Your task to perform on an android device: Turn on notifications for the Google Maps app Image 0: 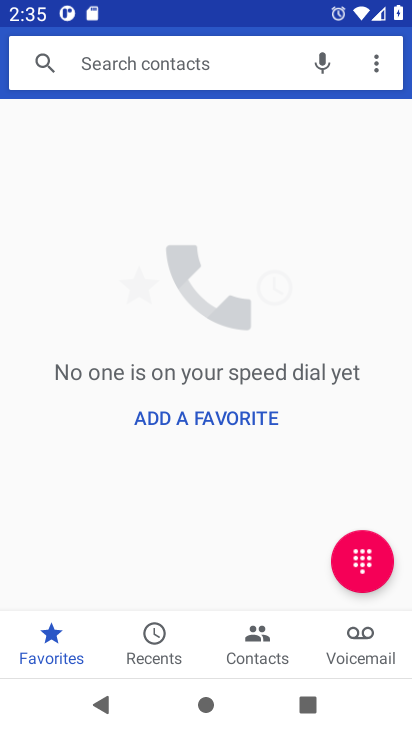
Step 0: press home button
Your task to perform on an android device: Turn on notifications for the Google Maps app Image 1: 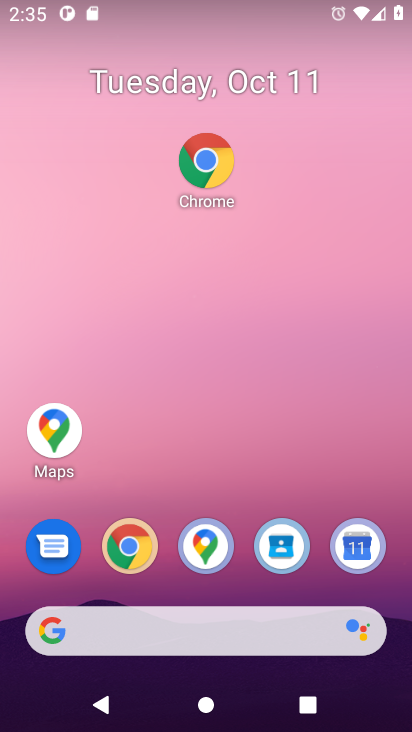
Step 1: drag from (136, 673) to (111, 200)
Your task to perform on an android device: Turn on notifications for the Google Maps app Image 2: 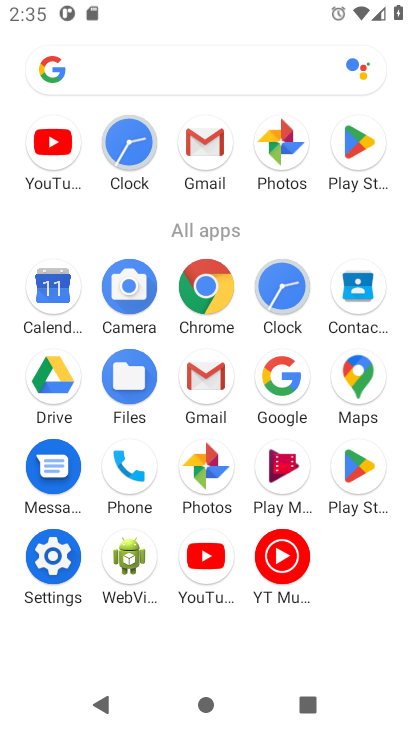
Step 2: click (54, 552)
Your task to perform on an android device: Turn on notifications for the Google Maps app Image 3: 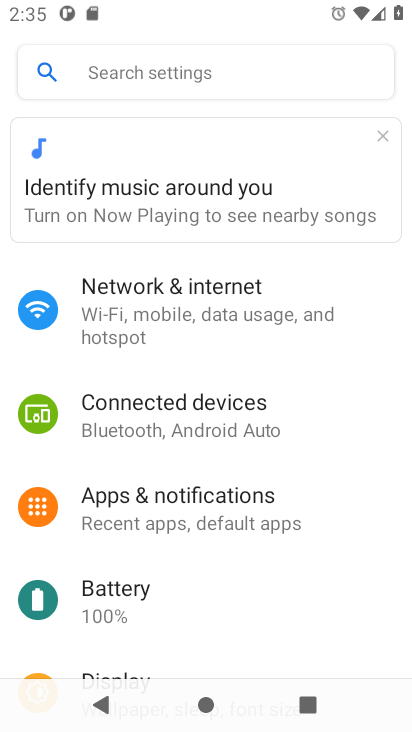
Step 3: click (228, 509)
Your task to perform on an android device: Turn on notifications for the Google Maps app Image 4: 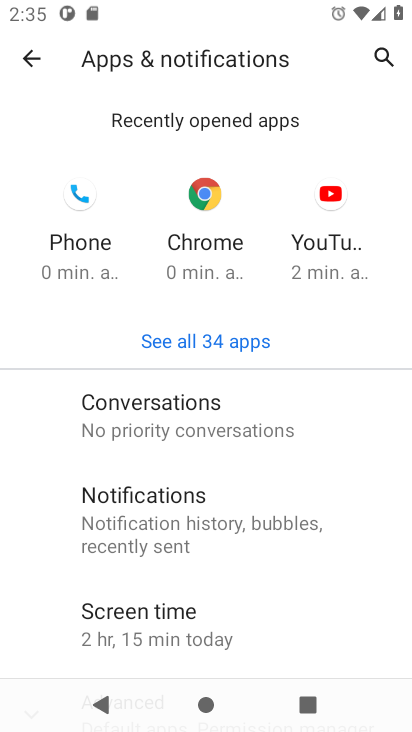
Step 4: click (219, 341)
Your task to perform on an android device: Turn on notifications for the Google Maps app Image 5: 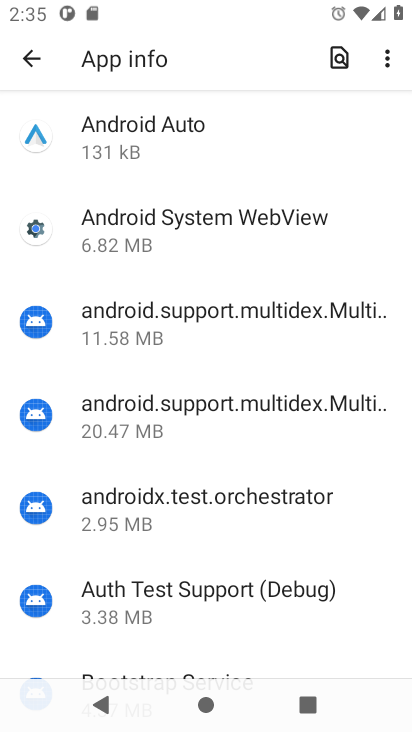
Step 5: drag from (229, 594) to (276, 220)
Your task to perform on an android device: Turn on notifications for the Google Maps app Image 6: 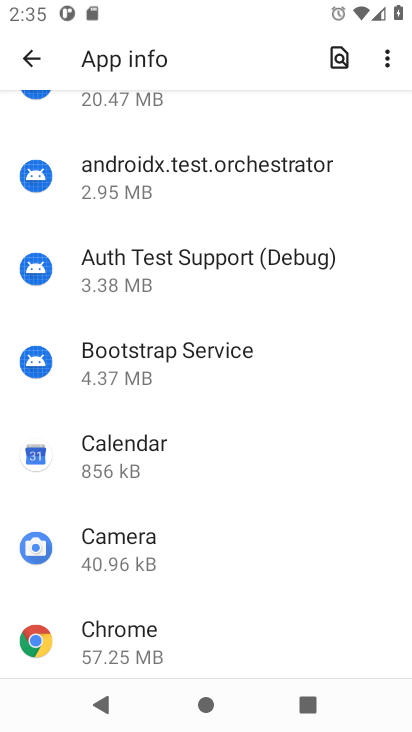
Step 6: drag from (257, 565) to (240, 206)
Your task to perform on an android device: Turn on notifications for the Google Maps app Image 7: 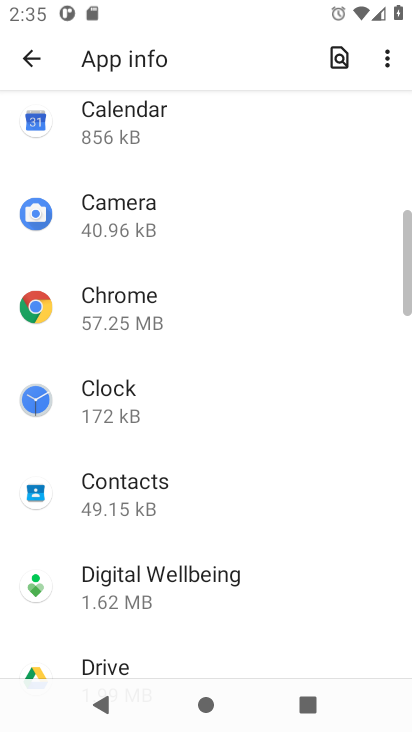
Step 7: drag from (265, 556) to (260, 205)
Your task to perform on an android device: Turn on notifications for the Google Maps app Image 8: 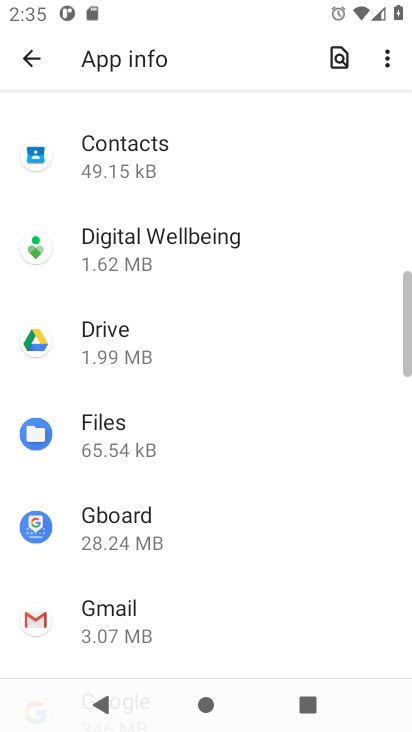
Step 8: drag from (230, 605) to (220, 247)
Your task to perform on an android device: Turn on notifications for the Google Maps app Image 9: 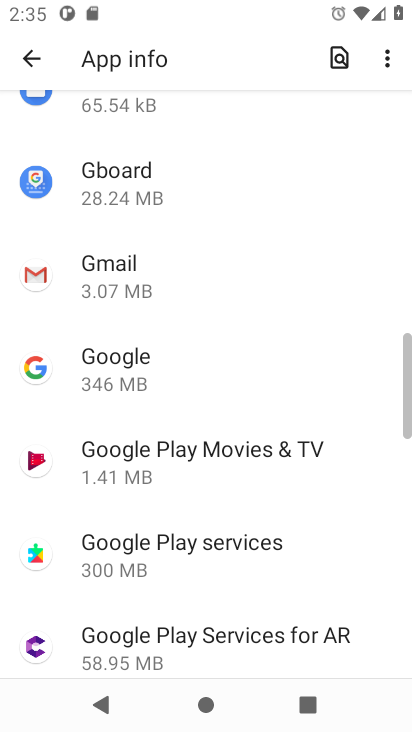
Step 9: drag from (231, 586) to (223, 232)
Your task to perform on an android device: Turn on notifications for the Google Maps app Image 10: 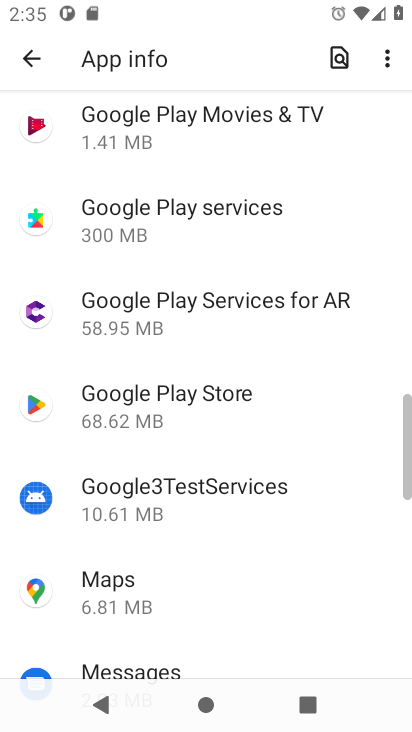
Step 10: drag from (229, 615) to (233, 247)
Your task to perform on an android device: Turn on notifications for the Google Maps app Image 11: 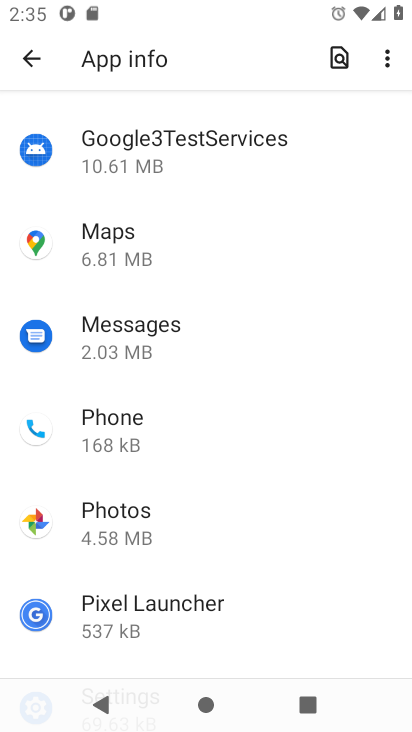
Step 11: click (118, 249)
Your task to perform on an android device: Turn on notifications for the Google Maps app Image 12: 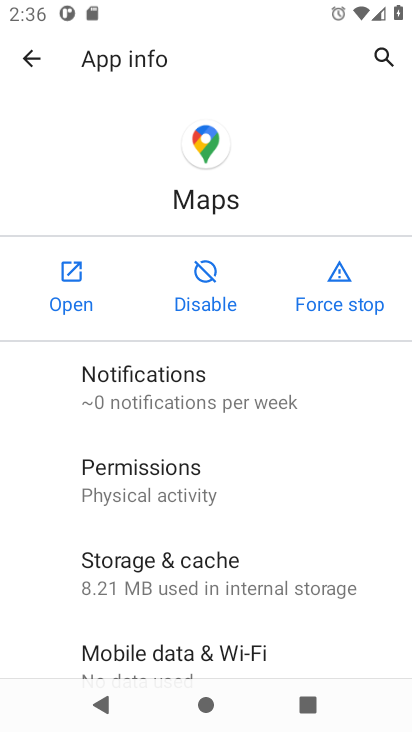
Step 12: click (212, 380)
Your task to perform on an android device: Turn on notifications for the Google Maps app Image 13: 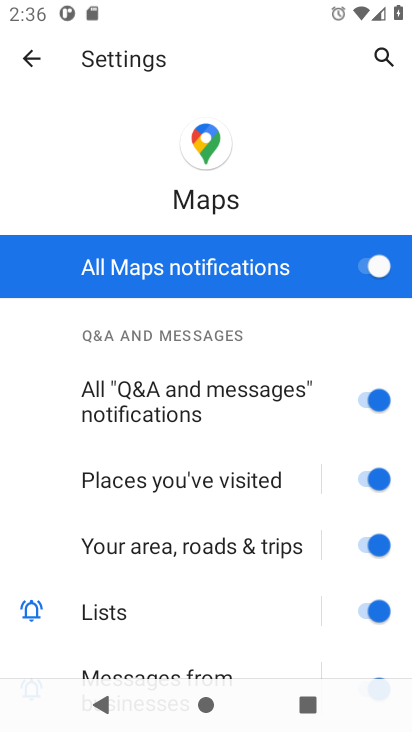
Step 13: click (370, 268)
Your task to perform on an android device: Turn on notifications for the Google Maps app Image 14: 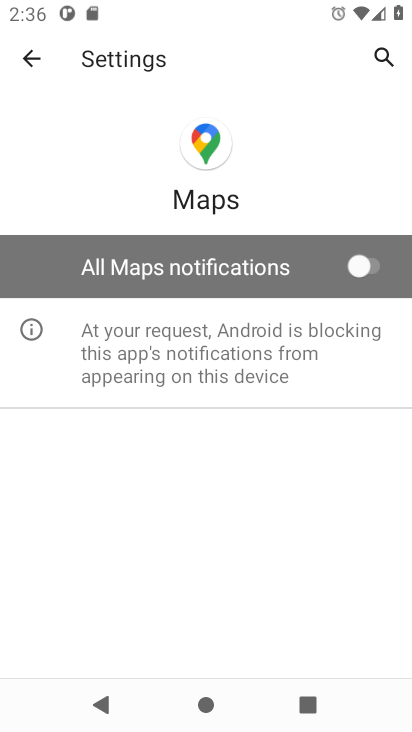
Step 14: click (370, 268)
Your task to perform on an android device: Turn on notifications for the Google Maps app Image 15: 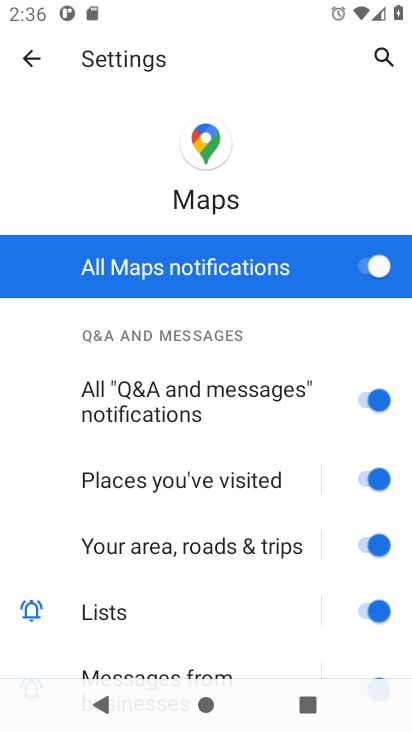
Step 15: drag from (230, 583) to (235, 354)
Your task to perform on an android device: Turn on notifications for the Google Maps app Image 16: 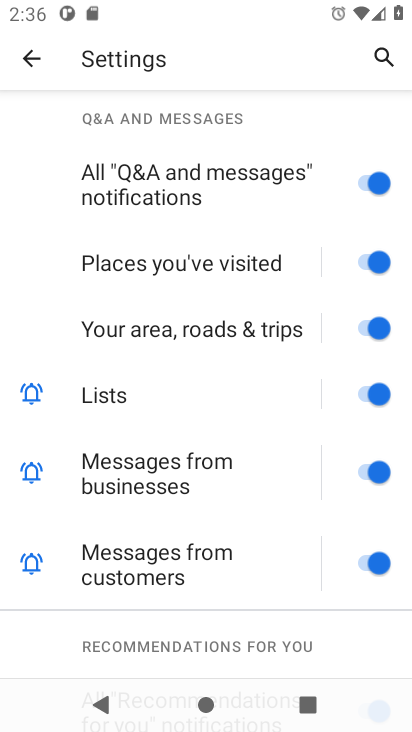
Step 16: drag from (249, 619) to (257, 306)
Your task to perform on an android device: Turn on notifications for the Google Maps app Image 17: 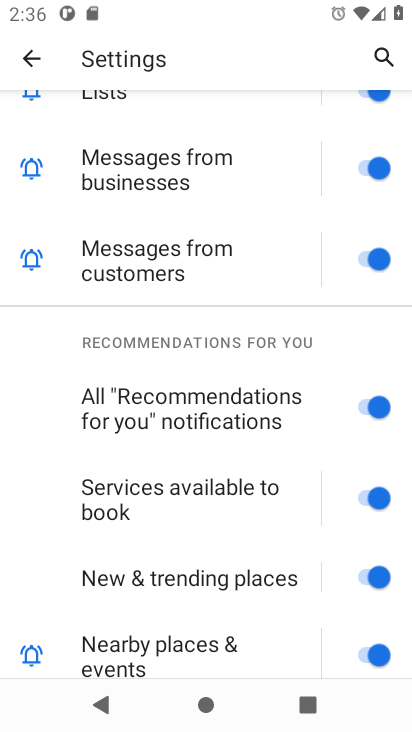
Step 17: drag from (201, 609) to (201, 370)
Your task to perform on an android device: Turn on notifications for the Google Maps app Image 18: 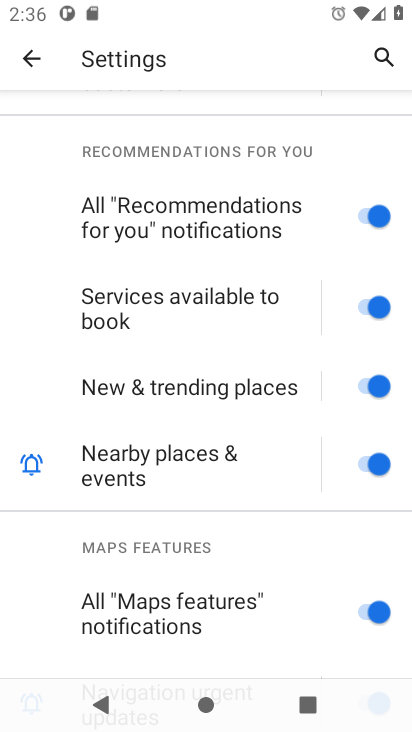
Step 18: drag from (200, 614) to (203, 343)
Your task to perform on an android device: Turn on notifications for the Google Maps app Image 19: 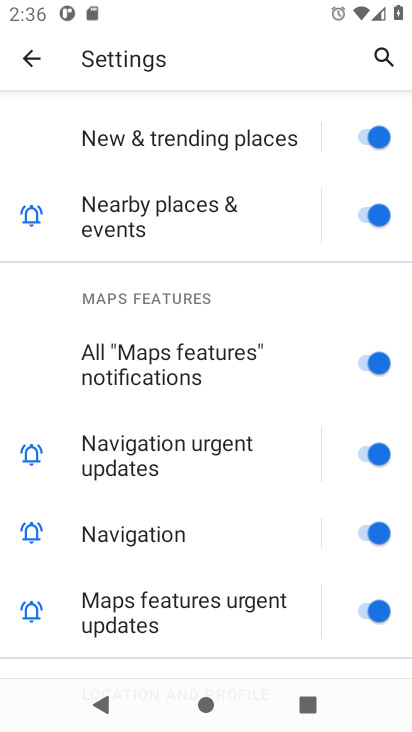
Step 19: drag from (147, 588) to (128, 218)
Your task to perform on an android device: Turn on notifications for the Google Maps app Image 20: 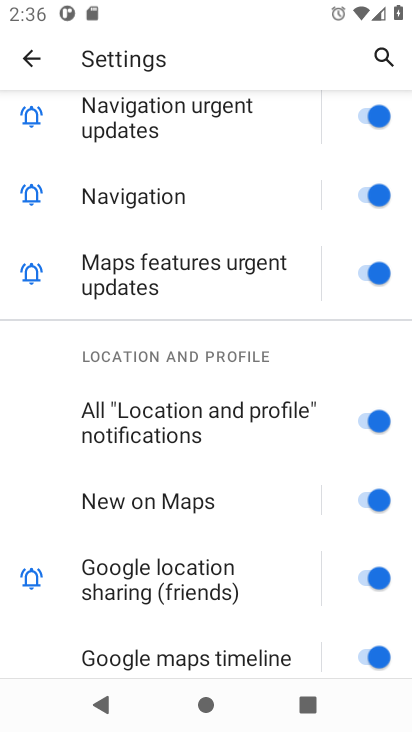
Step 20: drag from (189, 577) to (181, 230)
Your task to perform on an android device: Turn on notifications for the Google Maps app Image 21: 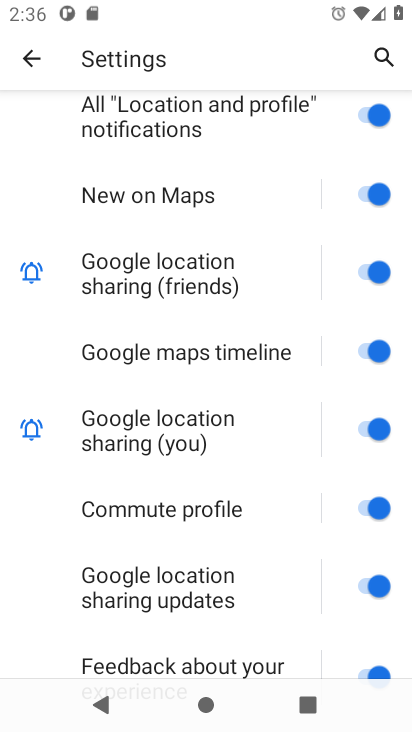
Step 21: drag from (185, 567) to (190, 320)
Your task to perform on an android device: Turn on notifications for the Google Maps app Image 22: 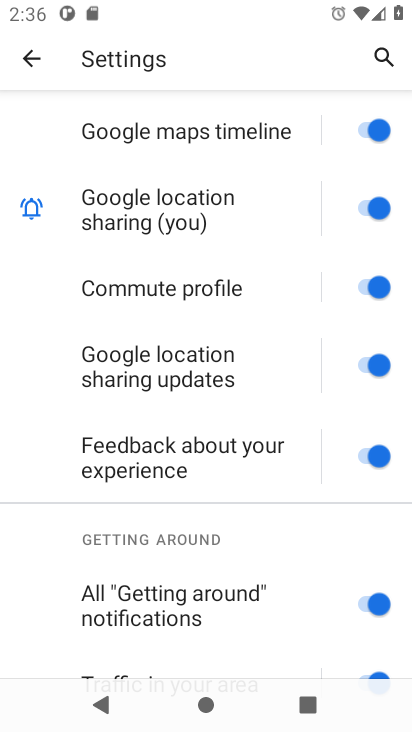
Step 22: drag from (240, 583) to (256, 355)
Your task to perform on an android device: Turn on notifications for the Google Maps app Image 23: 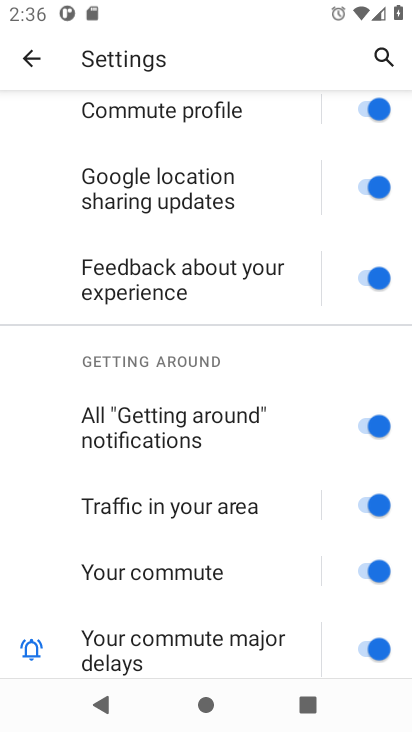
Step 23: drag from (262, 625) to (250, 291)
Your task to perform on an android device: Turn on notifications for the Google Maps app Image 24: 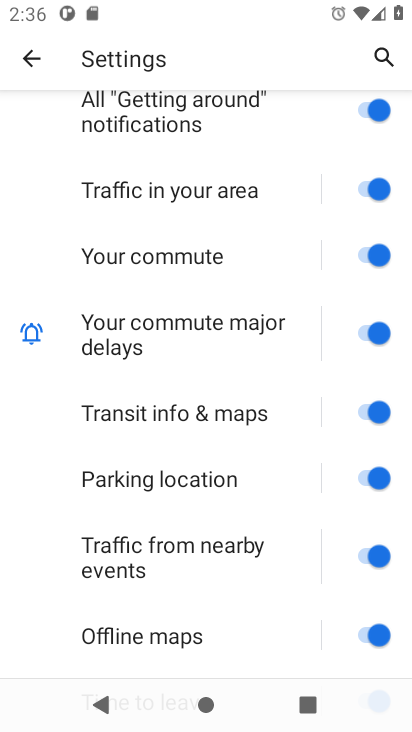
Step 24: drag from (231, 648) to (227, 366)
Your task to perform on an android device: Turn on notifications for the Google Maps app Image 25: 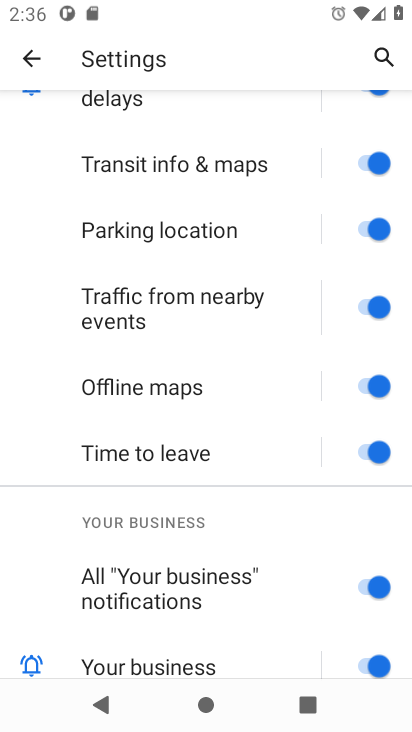
Step 25: drag from (186, 617) to (201, 424)
Your task to perform on an android device: Turn on notifications for the Google Maps app Image 26: 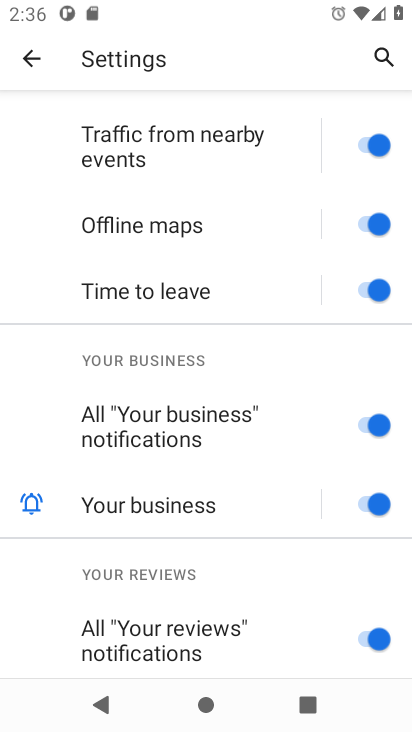
Step 26: drag from (237, 616) to (245, 389)
Your task to perform on an android device: Turn on notifications for the Google Maps app Image 27: 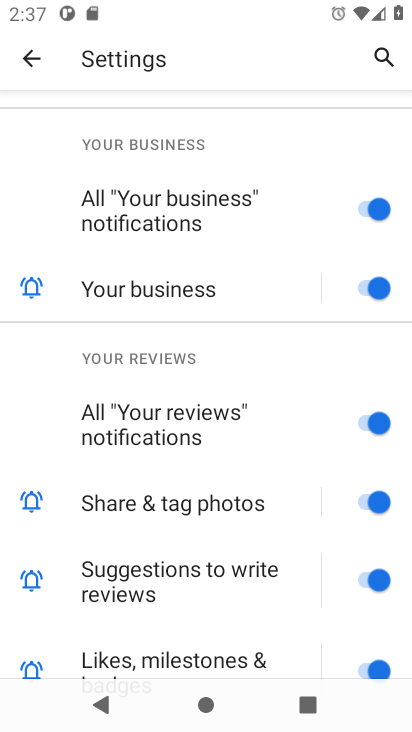
Step 27: drag from (215, 634) to (243, 363)
Your task to perform on an android device: Turn on notifications for the Google Maps app Image 28: 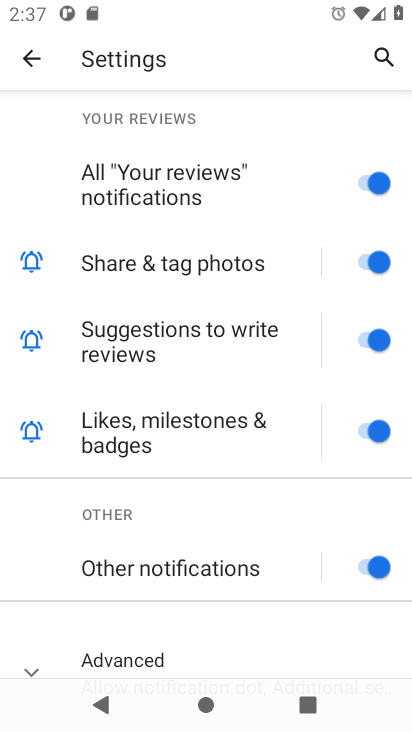
Step 28: drag from (196, 609) to (199, 294)
Your task to perform on an android device: Turn on notifications for the Google Maps app Image 29: 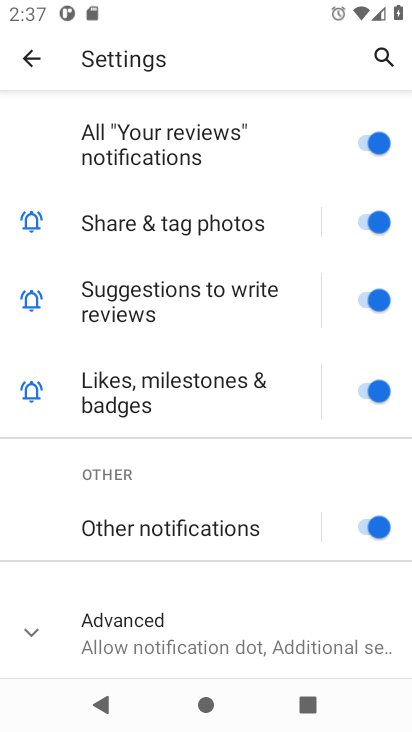
Step 29: click (34, 634)
Your task to perform on an android device: Turn on notifications for the Google Maps app Image 30: 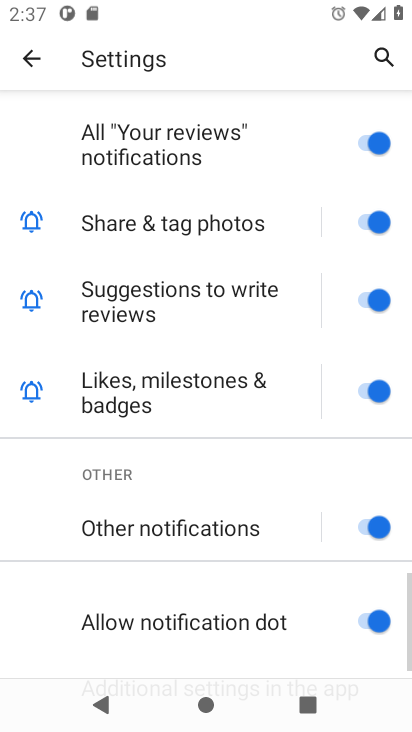
Step 30: drag from (108, 566) to (108, 272)
Your task to perform on an android device: Turn on notifications for the Google Maps app Image 31: 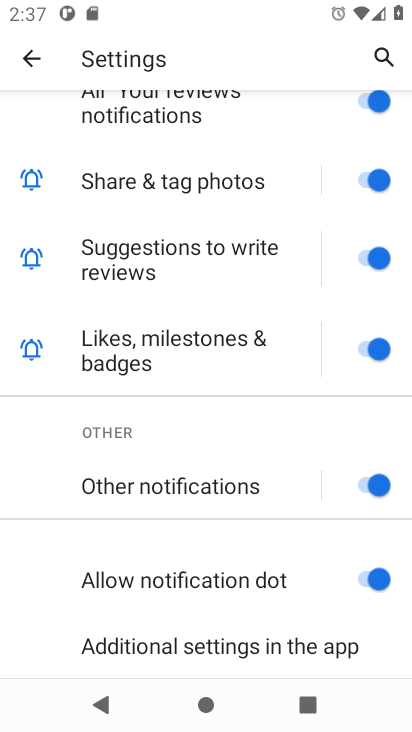
Step 31: drag from (184, 615) to (183, 411)
Your task to perform on an android device: Turn on notifications for the Google Maps app Image 32: 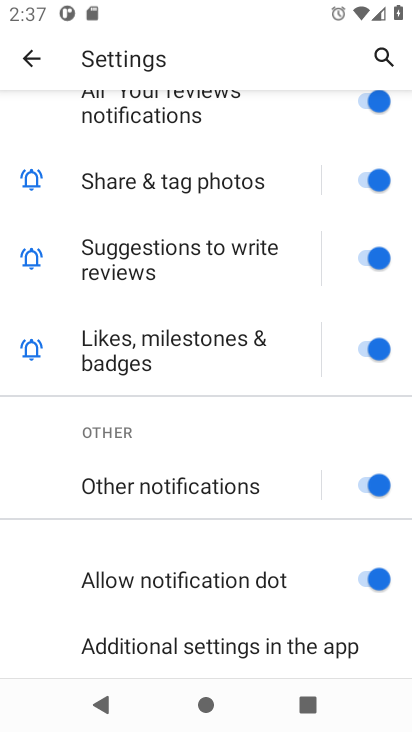
Step 32: click (226, 649)
Your task to perform on an android device: Turn on notifications for the Google Maps app Image 33: 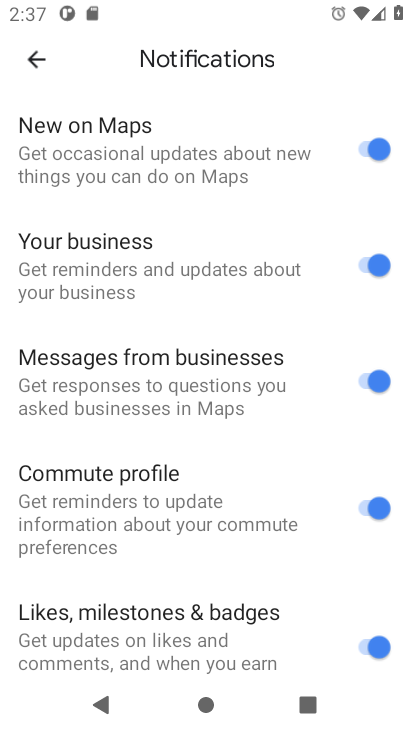
Step 33: drag from (202, 597) to (192, 99)
Your task to perform on an android device: Turn on notifications for the Google Maps app Image 34: 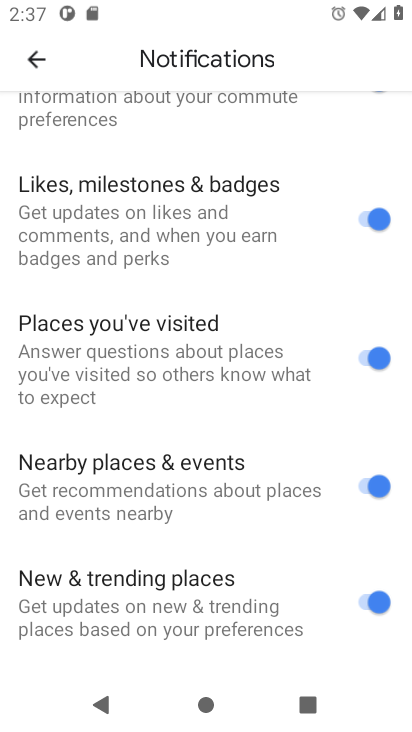
Step 34: drag from (167, 593) to (185, 155)
Your task to perform on an android device: Turn on notifications for the Google Maps app Image 35: 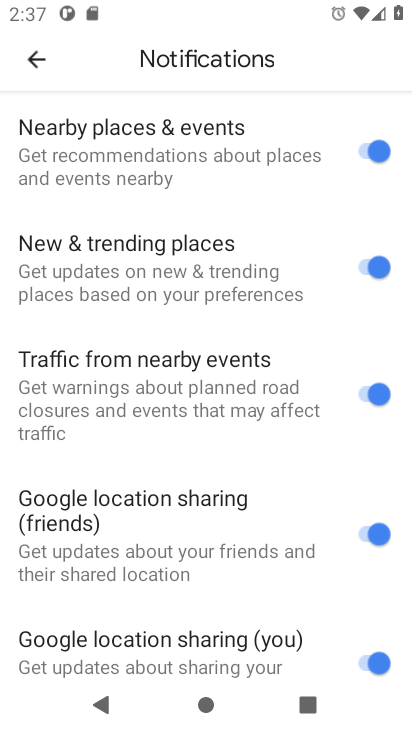
Step 35: drag from (206, 600) to (206, 172)
Your task to perform on an android device: Turn on notifications for the Google Maps app Image 36: 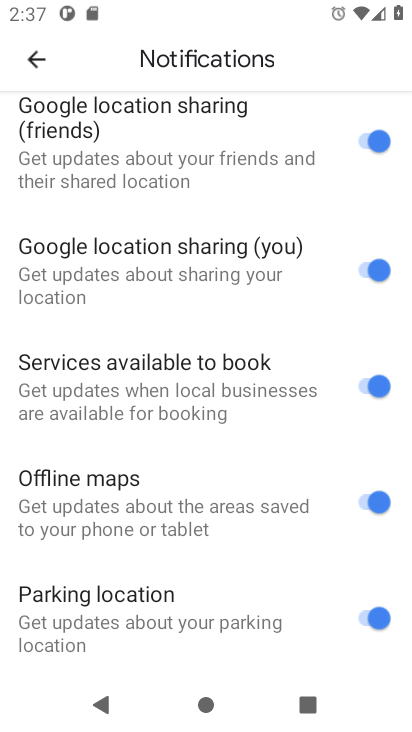
Step 36: drag from (221, 599) to (230, 212)
Your task to perform on an android device: Turn on notifications for the Google Maps app Image 37: 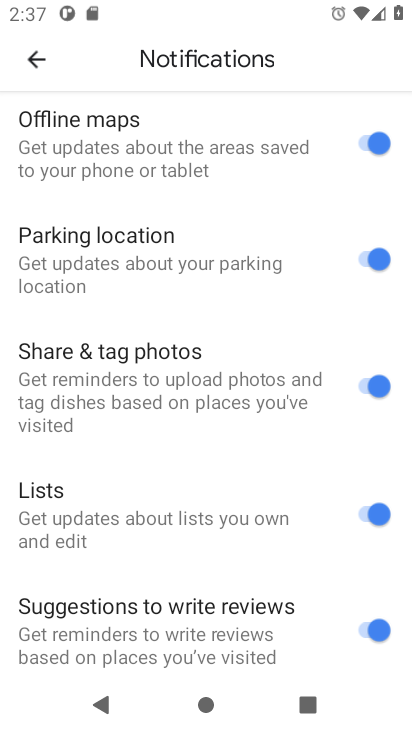
Step 37: drag from (202, 618) to (213, 176)
Your task to perform on an android device: Turn on notifications for the Google Maps app Image 38: 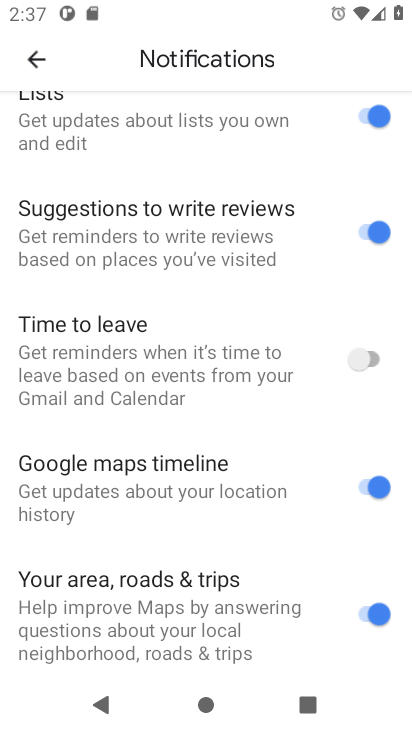
Step 38: drag from (211, 643) to (233, 274)
Your task to perform on an android device: Turn on notifications for the Google Maps app Image 39: 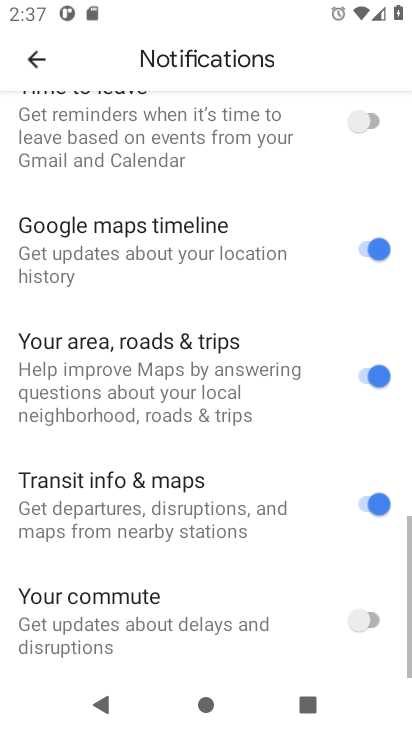
Step 39: click (233, 253)
Your task to perform on an android device: Turn on notifications for the Google Maps app Image 40: 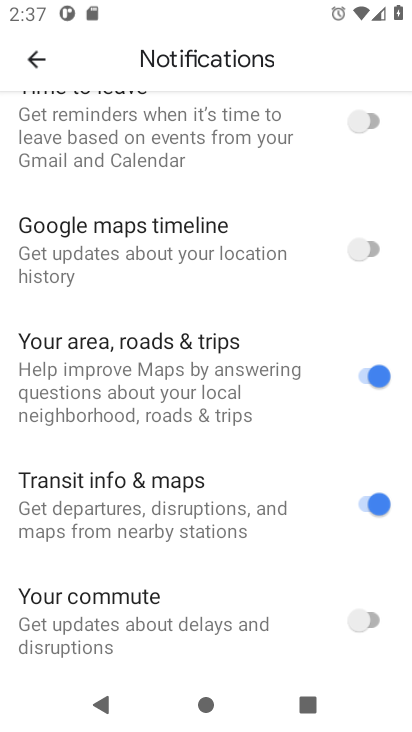
Step 40: drag from (225, 618) to (229, 442)
Your task to perform on an android device: Turn on notifications for the Google Maps app Image 41: 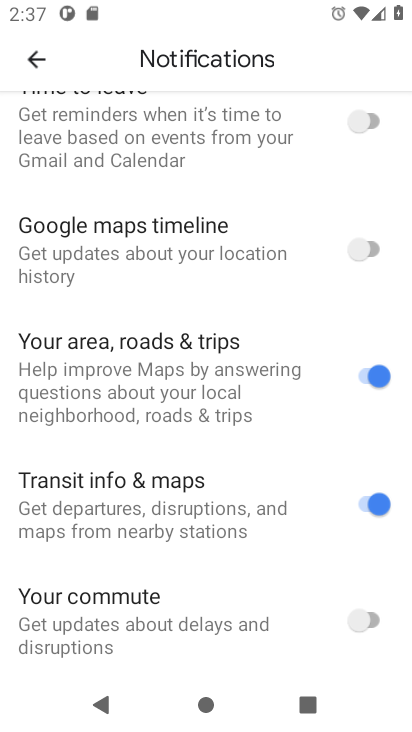
Step 41: click (362, 245)
Your task to perform on an android device: Turn on notifications for the Google Maps app Image 42: 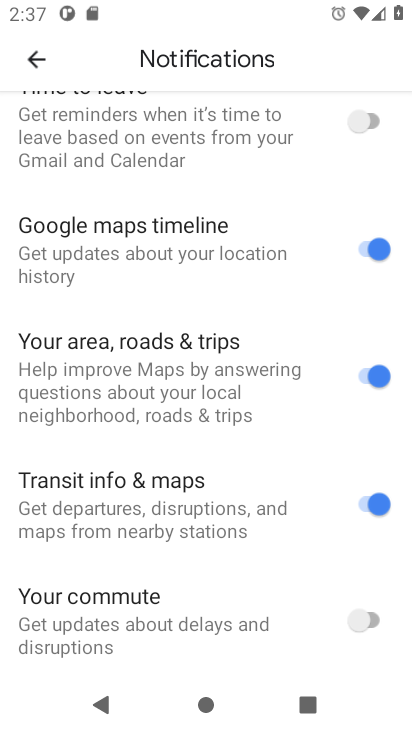
Step 42: task complete